Your task to perform on an android device: add a contact Image 0: 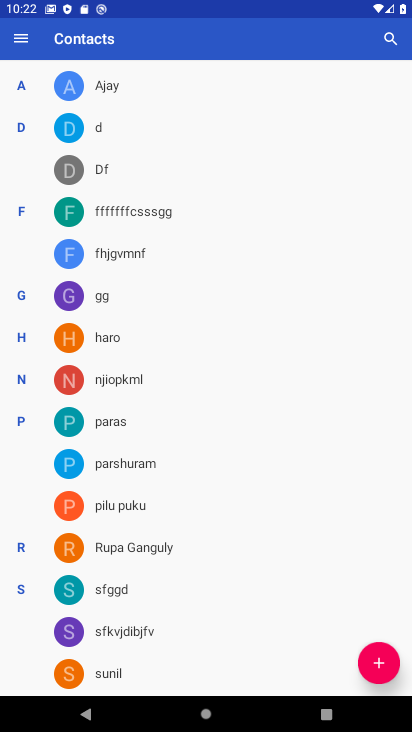
Step 0: click (372, 670)
Your task to perform on an android device: add a contact Image 1: 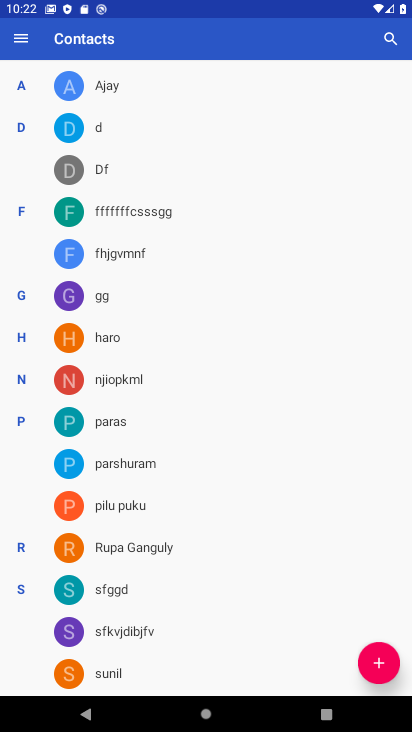
Step 1: click (370, 663)
Your task to perform on an android device: add a contact Image 2: 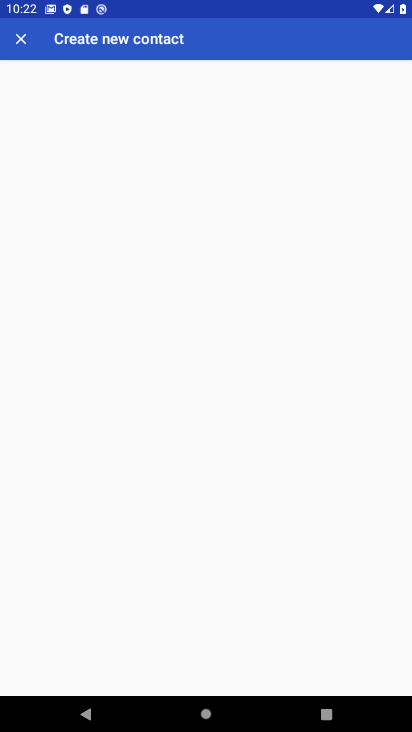
Step 2: click (369, 661)
Your task to perform on an android device: add a contact Image 3: 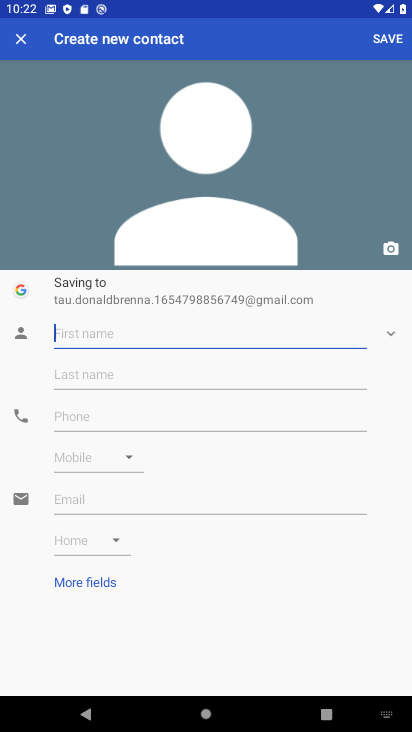
Step 3: type "dvcvhdshd"
Your task to perform on an android device: add a contact Image 4: 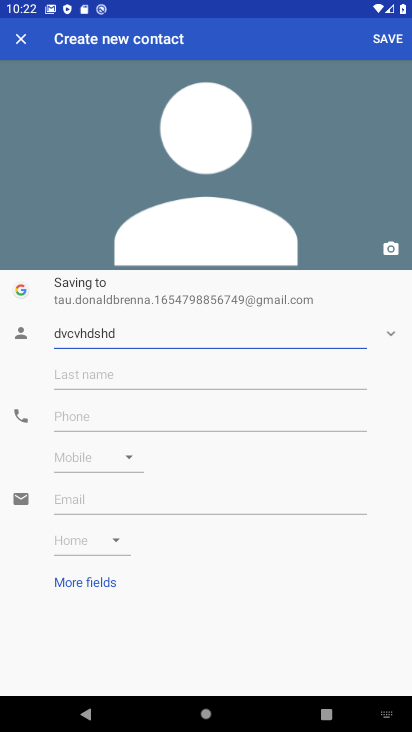
Step 4: click (71, 417)
Your task to perform on an android device: add a contact Image 5: 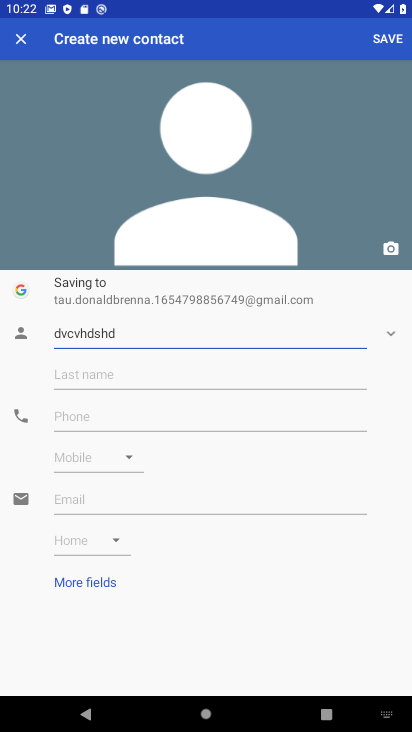
Step 5: click (71, 417)
Your task to perform on an android device: add a contact Image 6: 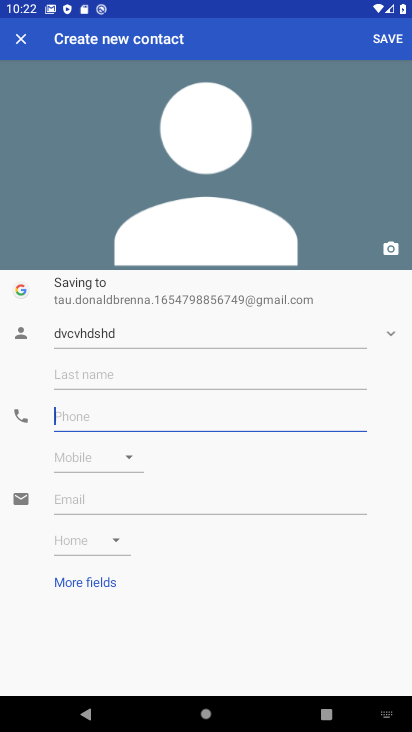
Step 6: click (71, 417)
Your task to perform on an android device: add a contact Image 7: 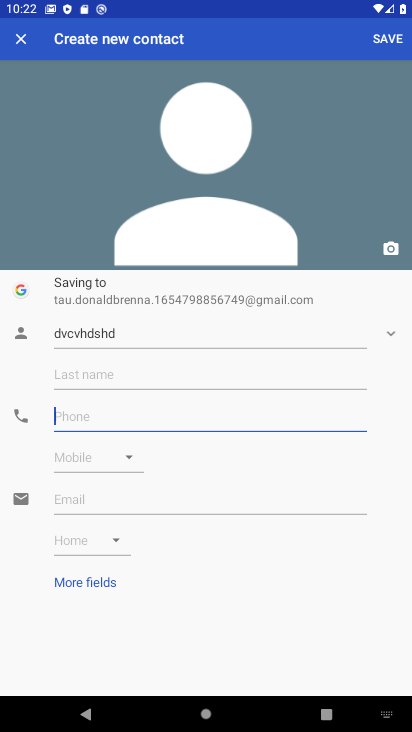
Step 7: click (71, 417)
Your task to perform on an android device: add a contact Image 8: 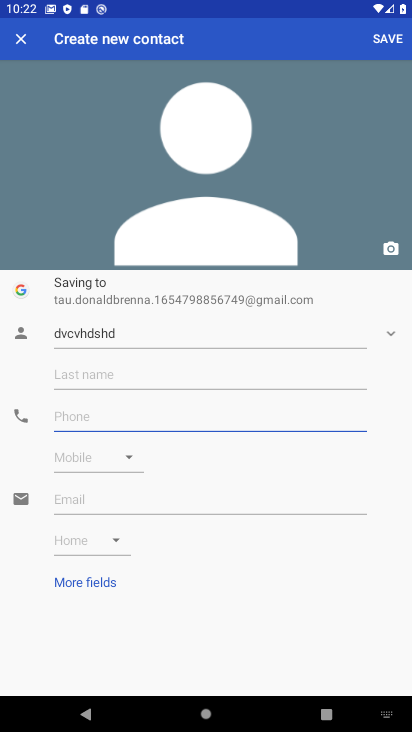
Step 8: click (71, 417)
Your task to perform on an android device: add a contact Image 9: 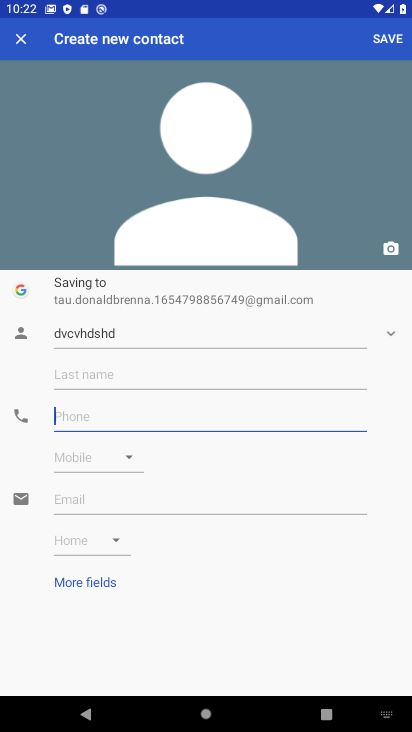
Step 9: click (71, 417)
Your task to perform on an android device: add a contact Image 10: 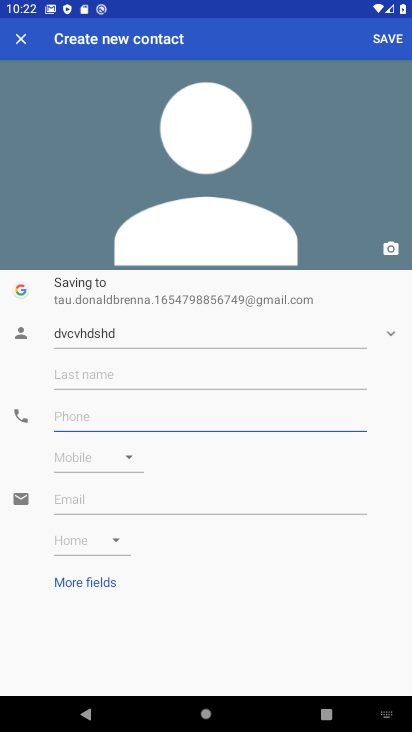
Step 10: type "663r9r489r7399"
Your task to perform on an android device: add a contact Image 11: 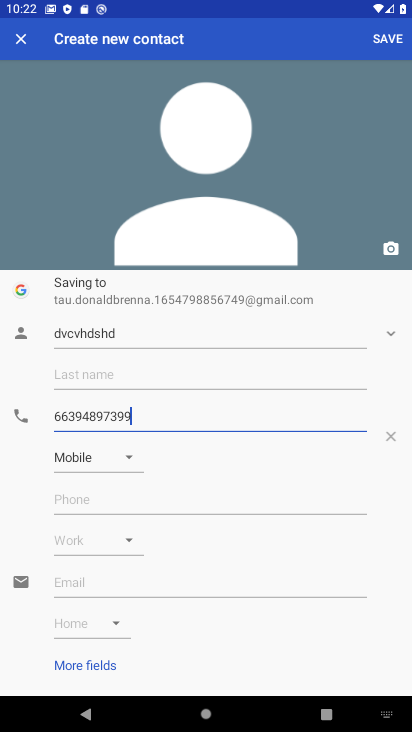
Step 11: click (383, 17)
Your task to perform on an android device: add a contact Image 12: 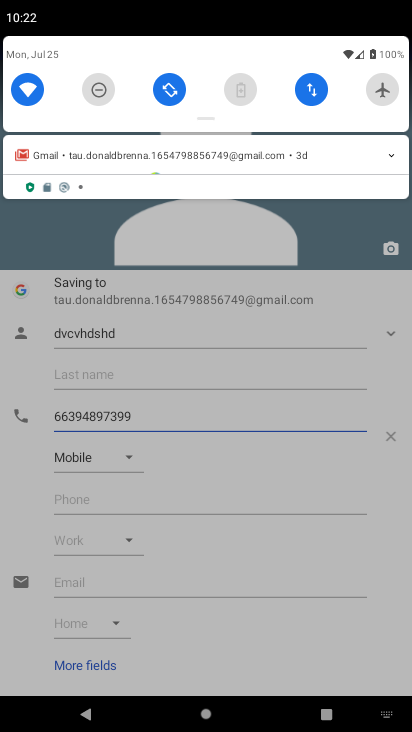
Step 12: click (381, 37)
Your task to perform on an android device: add a contact Image 13: 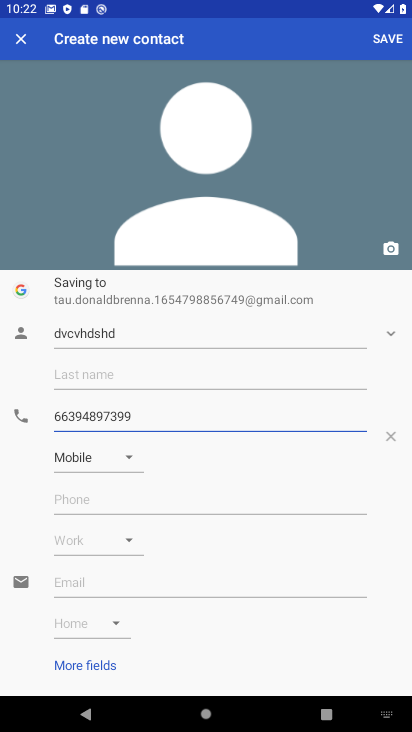
Step 13: click (380, 43)
Your task to perform on an android device: add a contact Image 14: 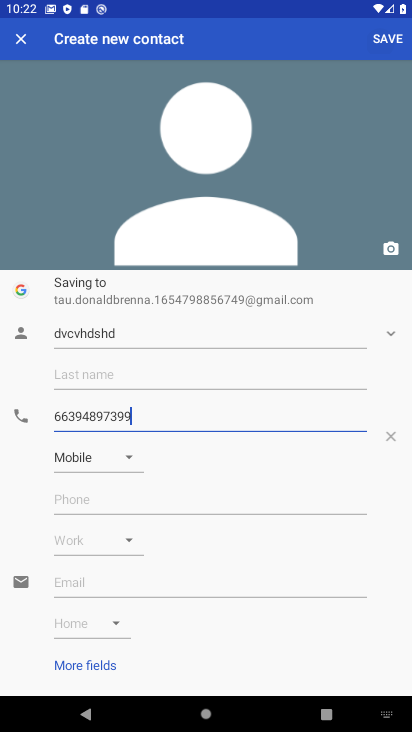
Step 14: click (383, 43)
Your task to perform on an android device: add a contact Image 15: 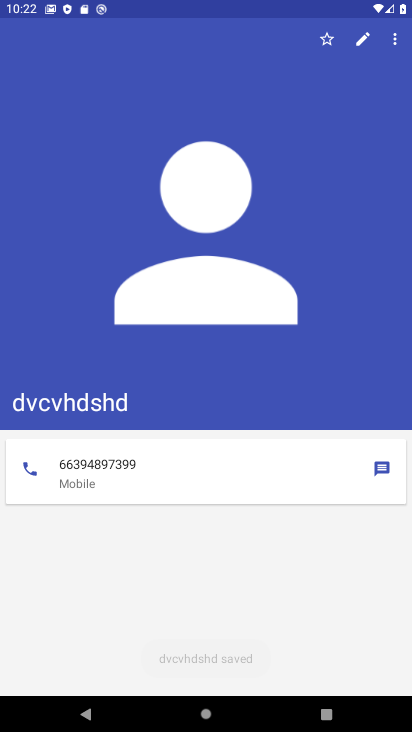
Step 15: task complete